Your task to perform on an android device: Toggle the flashlight Image 0: 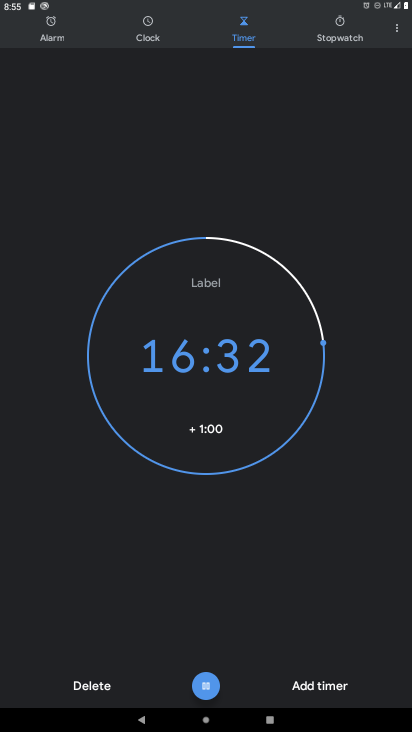
Step 0: press home button
Your task to perform on an android device: Toggle the flashlight Image 1: 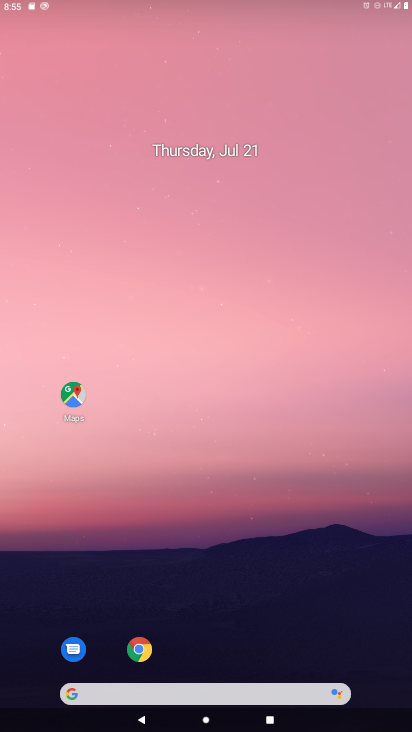
Step 1: drag from (376, 643) to (165, 83)
Your task to perform on an android device: Toggle the flashlight Image 2: 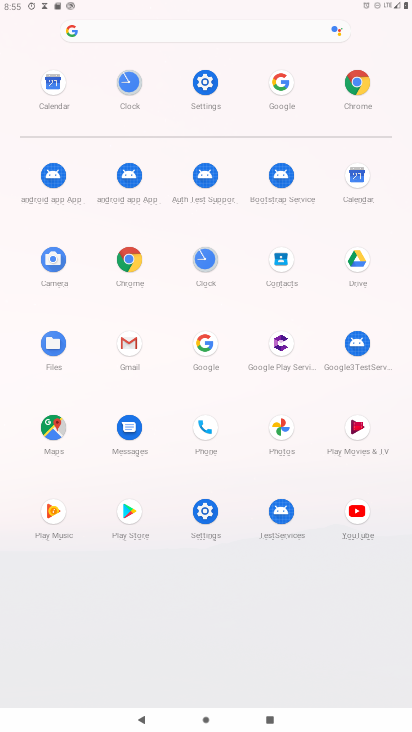
Step 2: click (197, 513)
Your task to perform on an android device: Toggle the flashlight Image 3: 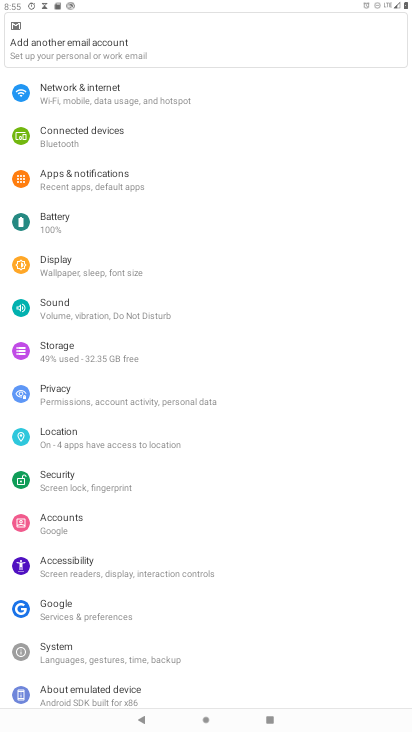
Step 3: task complete